Your task to perform on an android device: open a bookmark in the chrome app Image 0: 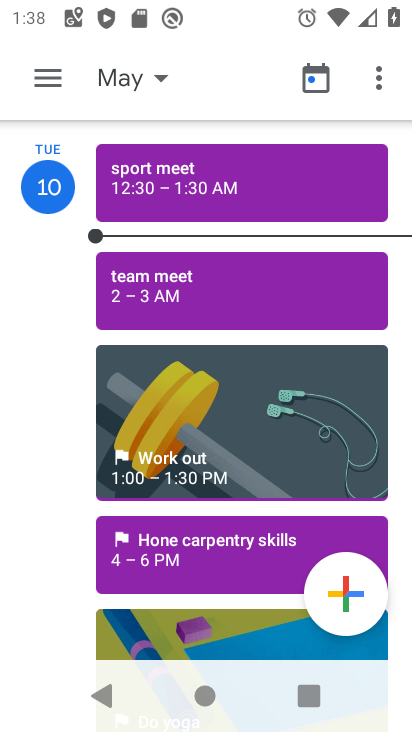
Step 0: press home button
Your task to perform on an android device: open a bookmark in the chrome app Image 1: 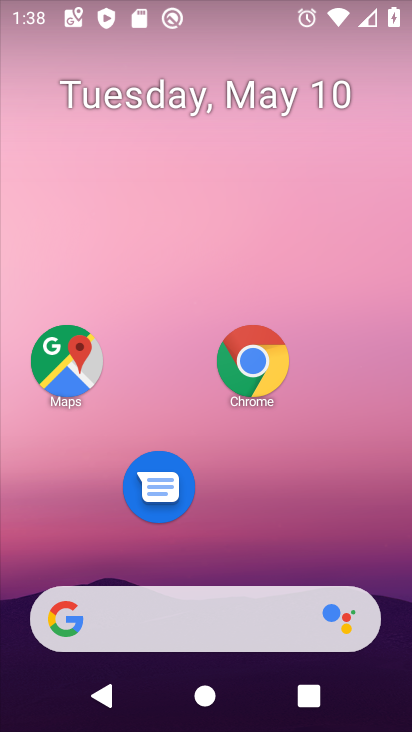
Step 1: click (267, 385)
Your task to perform on an android device: open a bookmark in the chrome app Image 2: 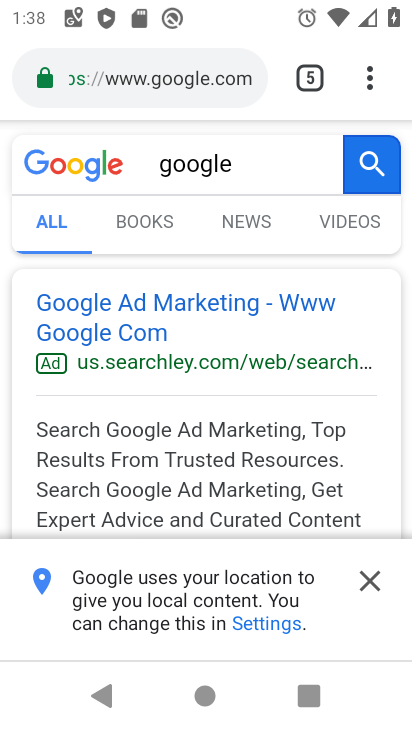
Step 2: click (363, 85)
Your task to perform on an android device: open a bookmark in the chrome app Image 3: 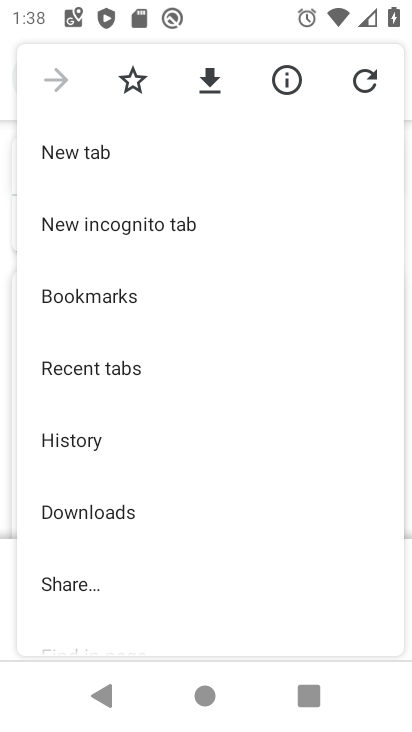
Step 3: click (233, 288)
Your task to perform on an android device: open a bookmark in the chrome app Image 4: 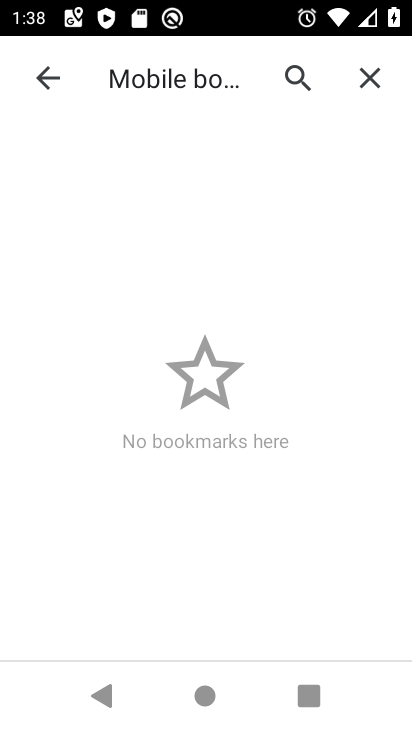
Step 4: click (233, 288)
Your task to perform on an android device: open a bookmark in the chrome app Image 5: 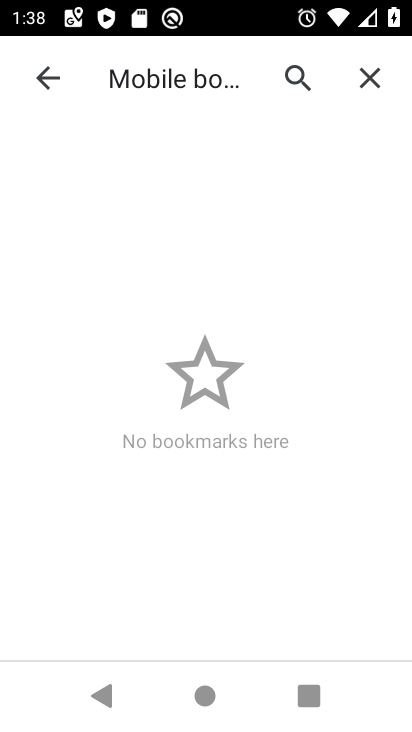
Step 5: task complete